Your task to perform on an android device: Go to Android settings Image 0: 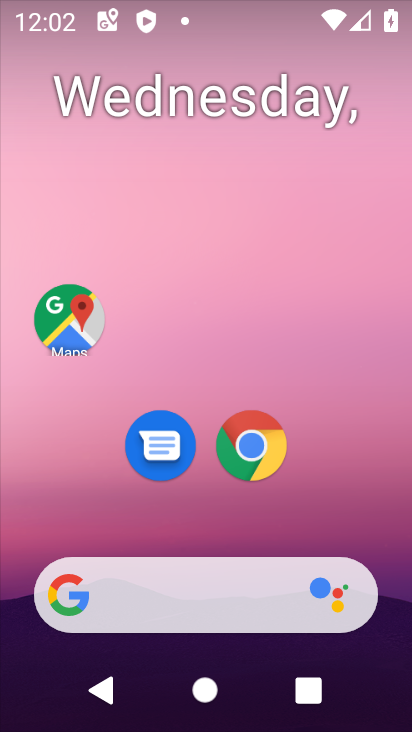
Step 0: drag from (326, 364) to (318, 14)
Your task to perform on an android device: Go to Android settings Image 1: 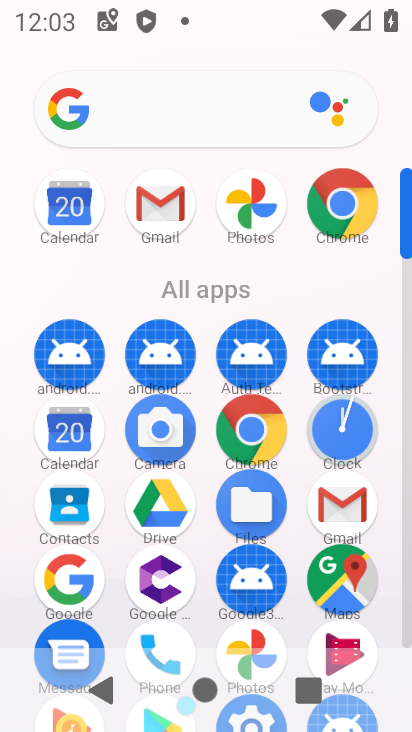
Step 1: drag from (294, 619) to (307, 261)
Your task to perform on an android device: Go to Android settings Image 2: 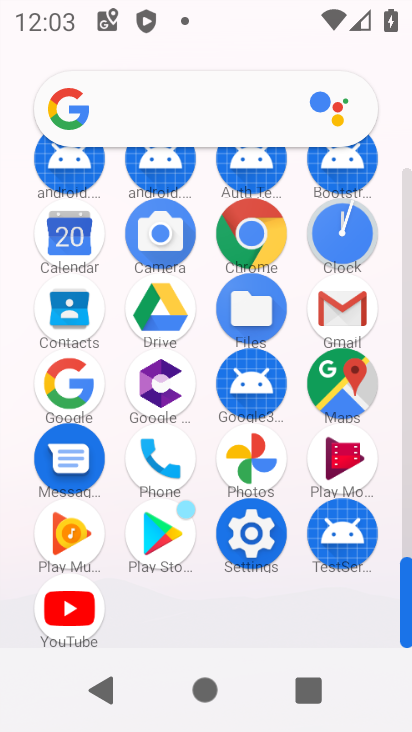
Step 2: click (245, 562)
Your task to perform on an android device: Go to Android settings Image 3: 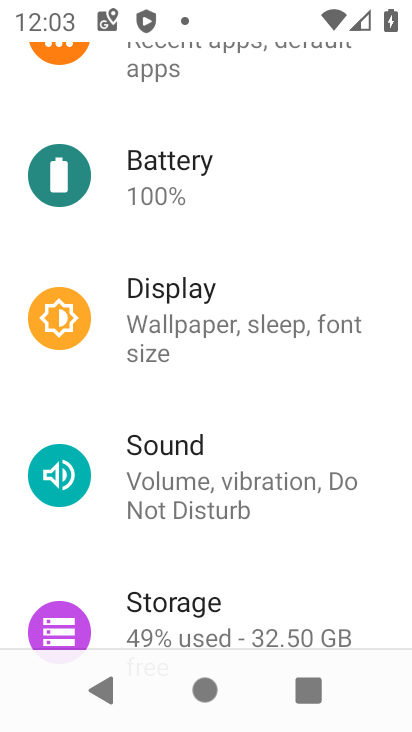
Step 3: task complete